Your task to perform on an android device: Go to calendar. Show me events next week Image 0: 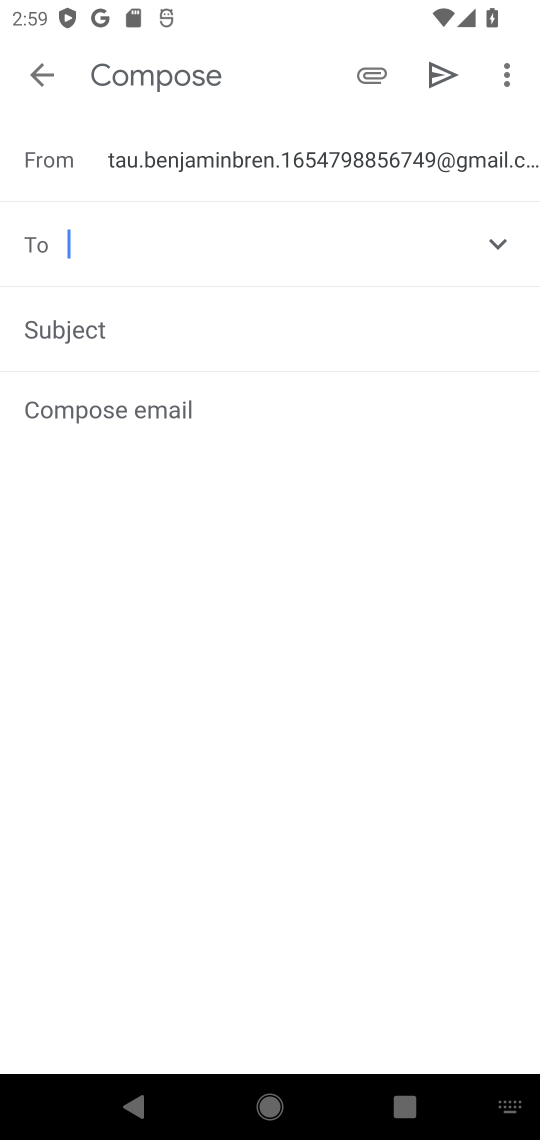
Step 0: press home button
Your task to perform on an android device: Go to calendar. Show me events next week Image 1: 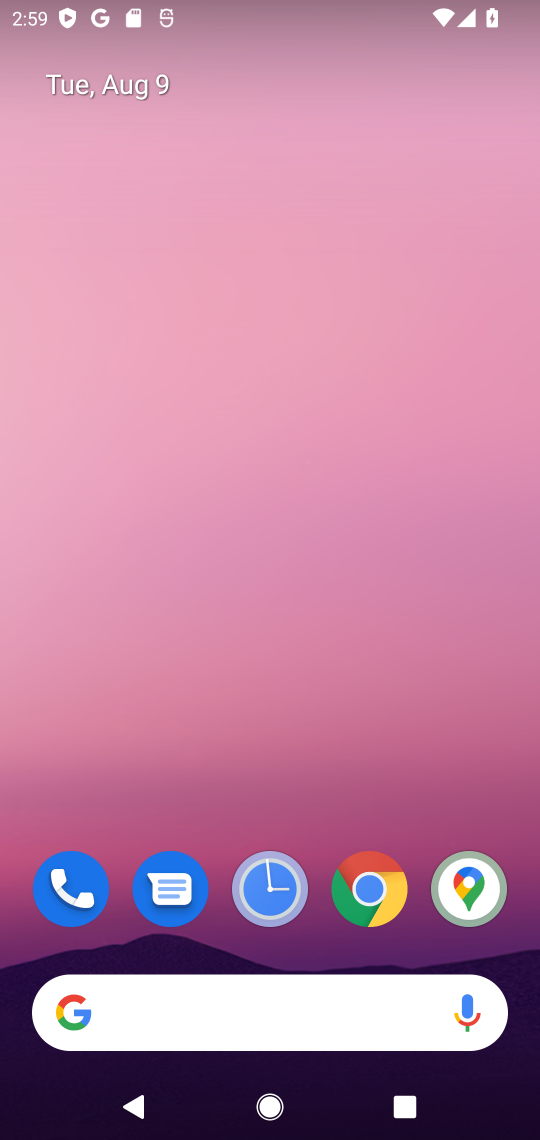
Step 1: drag from (283, 804) to (370, 0)
Your task to perform on an android device: Go to calendar. Show me events next week Image 2: 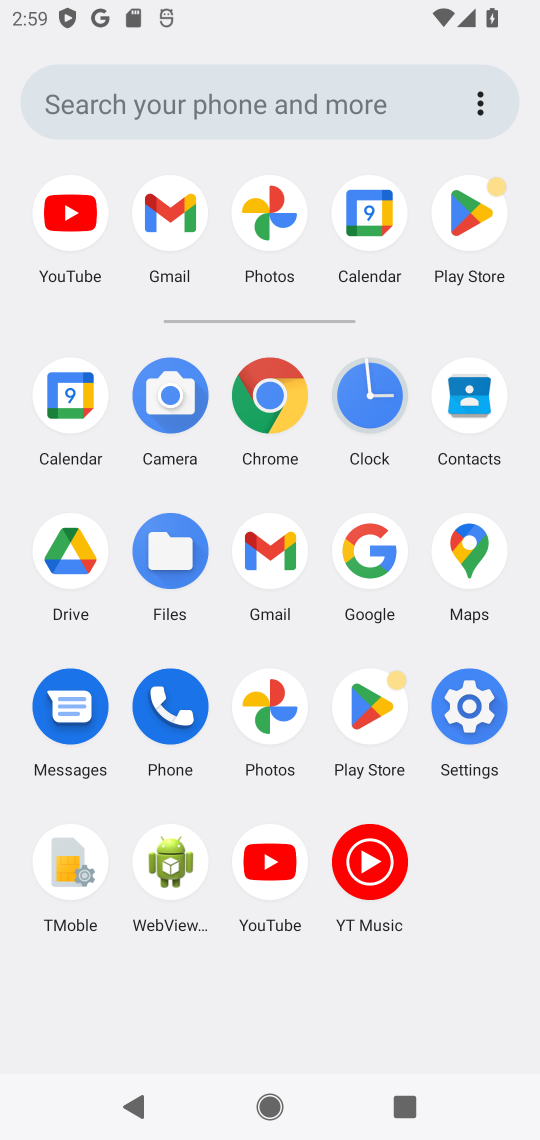
Step 2: click (372, 202)
Your task to perform on an android device: Go to calendar. Show me events next week Image 3: 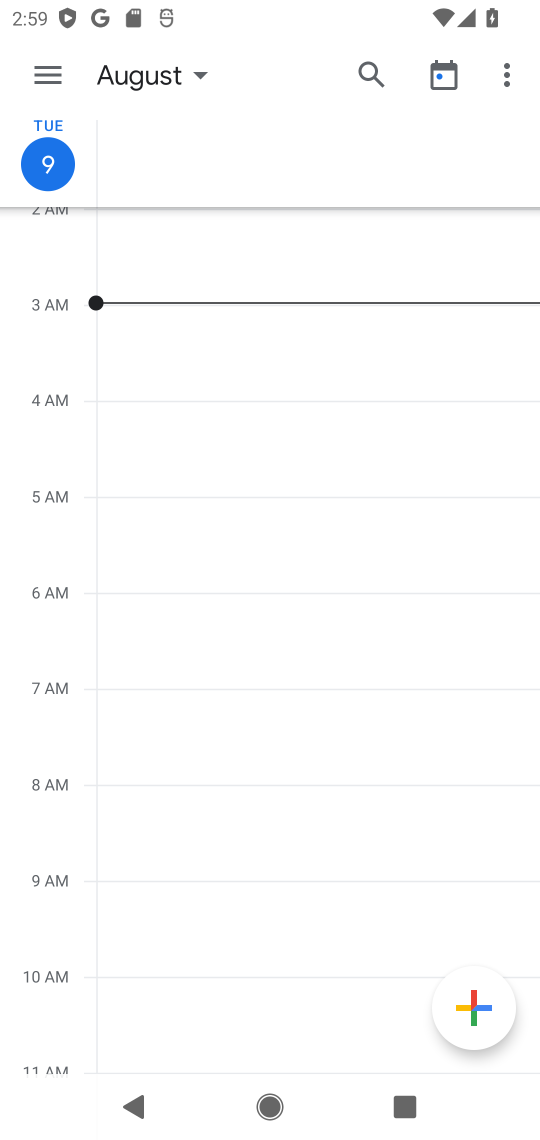
Step 3: click (52, 75)
Your task to perform on an android device: Go to calendar. Show me events next week Image 4: 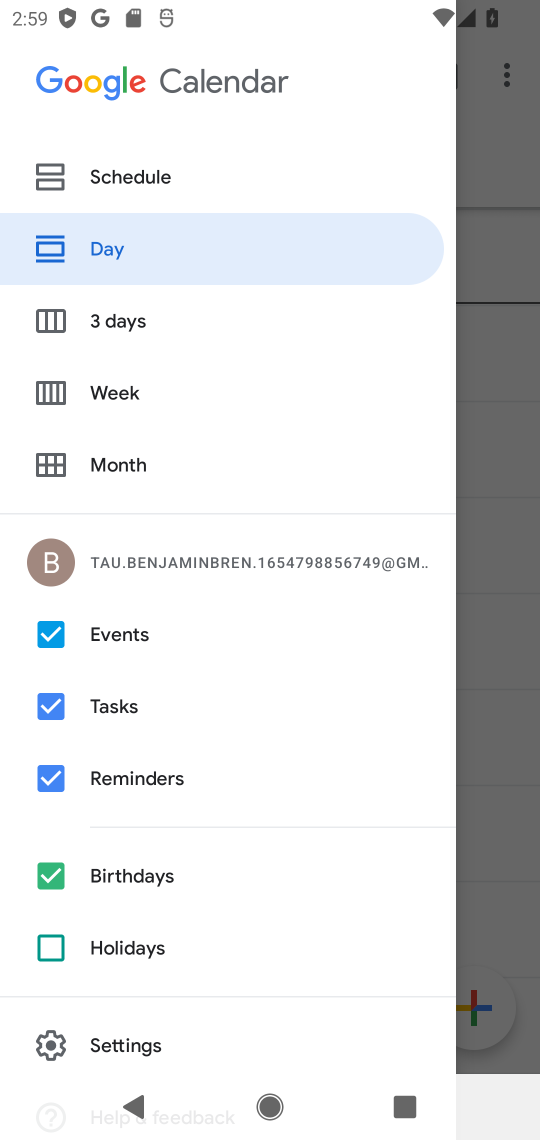
Step 4: click (63, 388)
Your task to perform on an android device: Go to calendar. Show me events next week Image 5: 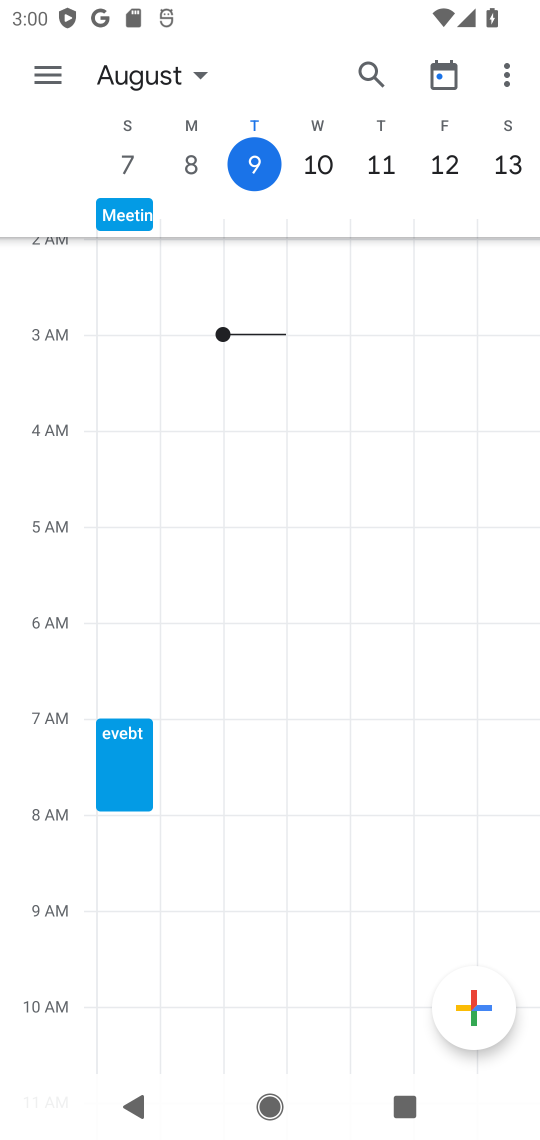
Step 5: task complete